Your task to perform on an android device: Add "asus rog" to the cart on bestbuy Image 0: 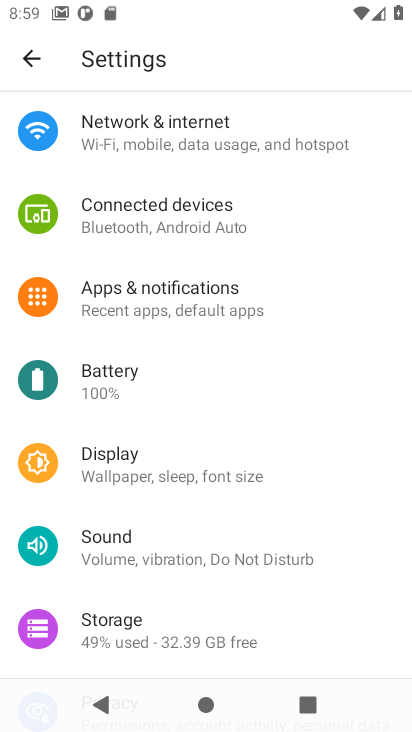
Step 0: press home button
Your task to perform on an android device: Add "asus rog" to the cart on bestbuy Image 1: 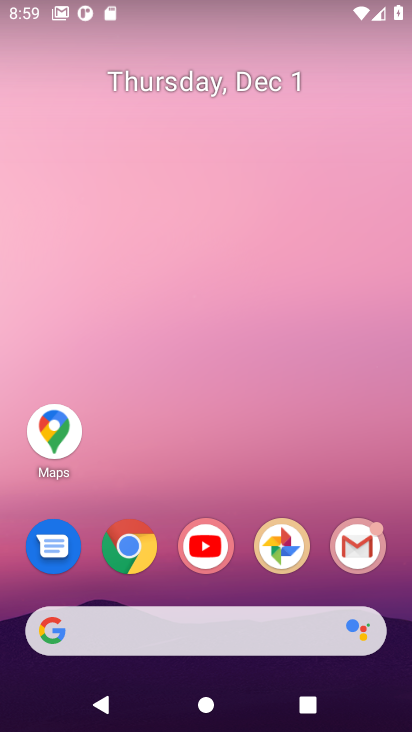
Step 1: click (130, 552)
Your task to perform on an android device: Add "asus rog" to the cart on bestbuy Image 2: 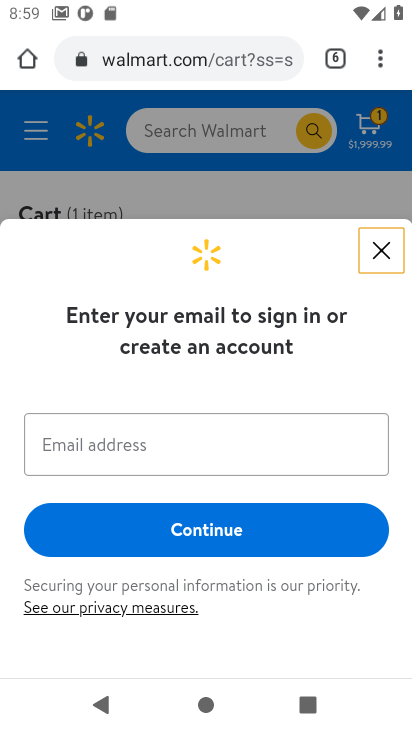
Step 2: click (194, 63)
Your task to perform on an android device: Add "asus rog" to the cart on bestbuy Image 3: 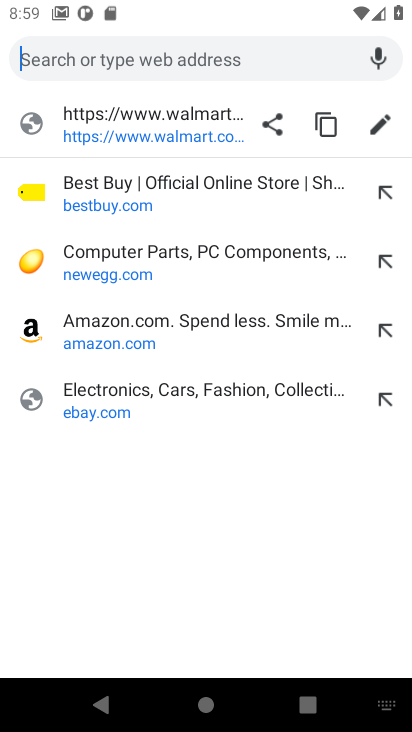
Step 3: click (104, 198)
Your task to perform on an android device: Add "asus rog" to the cart on bestbuy Image 4: 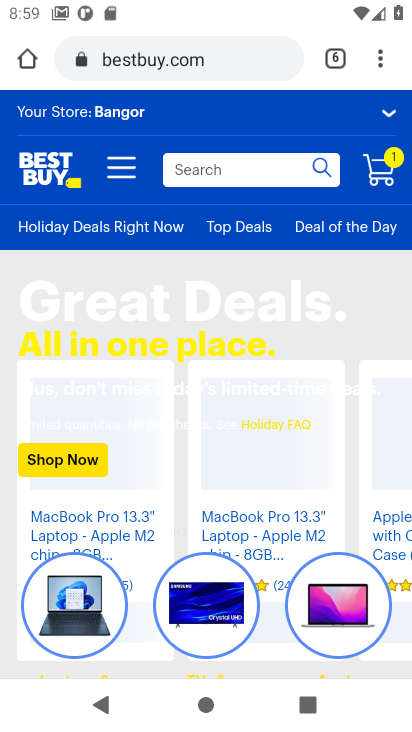
Step 4: click (197, 170)
Your task to perform on an android device: Add "asus rog" to the cart on bestbuy Image 5: 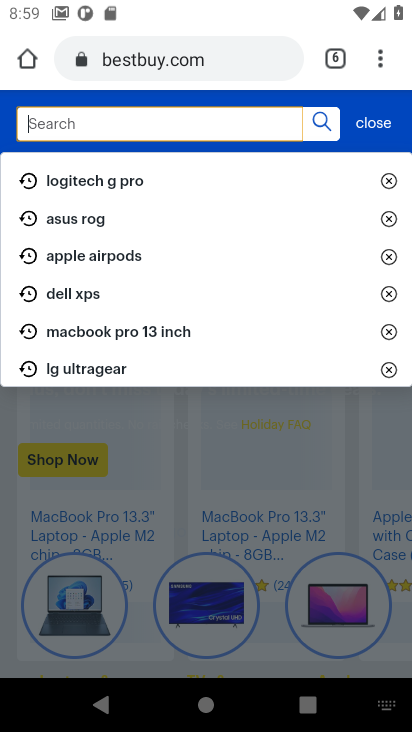
Step 5: type "asus rog"
Your task to perform on an android device: Add "asus rog" to the cart on bestbuy Image 6: 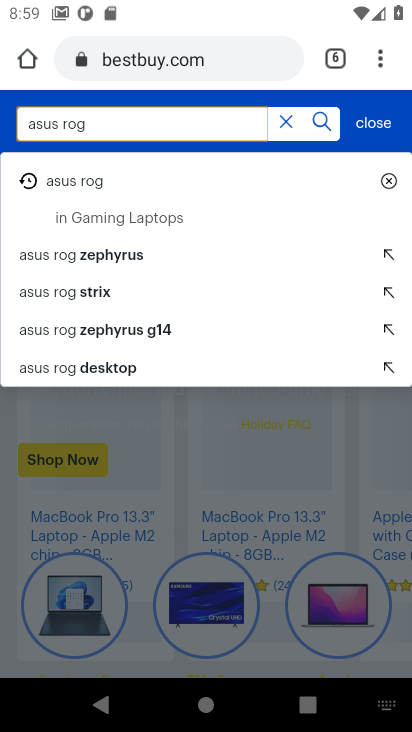
Step 6: click (54, 182)
Your task to perform on an android device: Add "asus rog" to the cart on bestbuy Image 7: 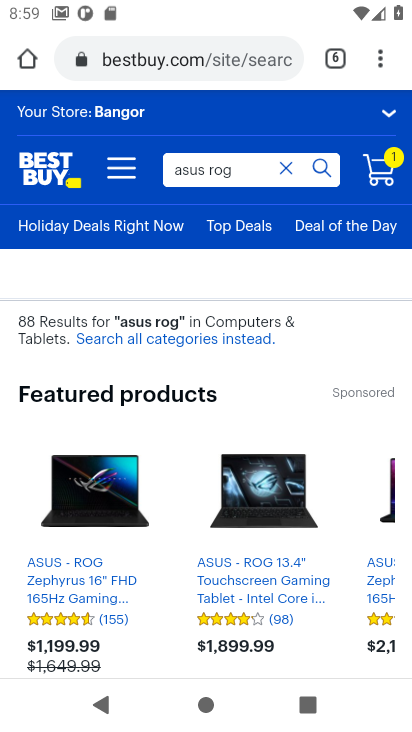
Step 7: drag from (196, 498) to (200, 307)
Your task to perform on an android device: Add "asus rog" to the cart on bestbuy Image 8: 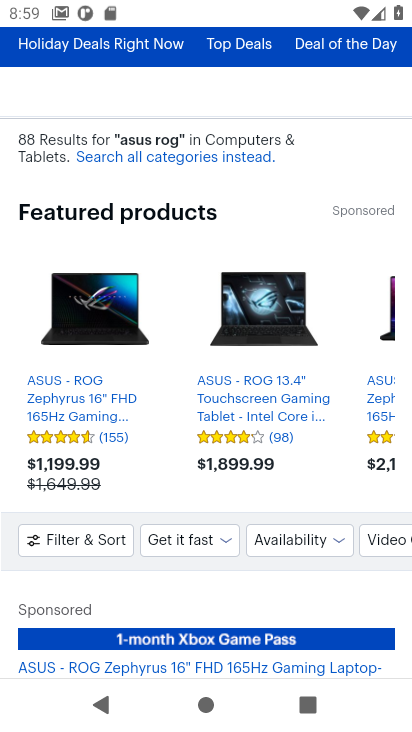
Step 8: drag from (197, 526) to (188, 257)
Your task to perform on an android device: Add "asus rog" to the cart on bestbuy Image 9: 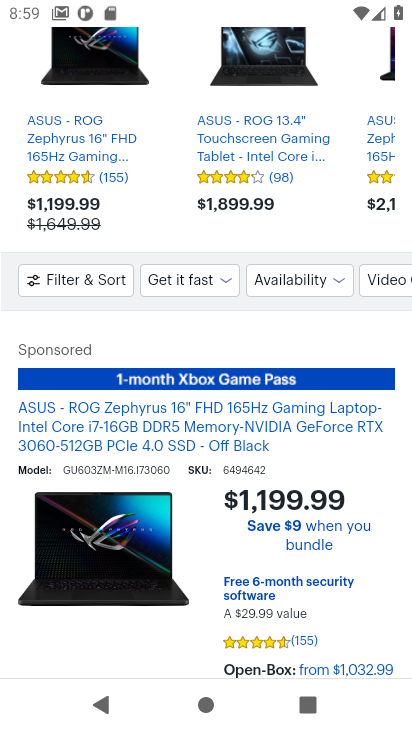
Step 9: drag from (160, 490) to (162, 343)
Your task to perform on an android device: Add "asus rog" to the cart on bestbuy Image 10: 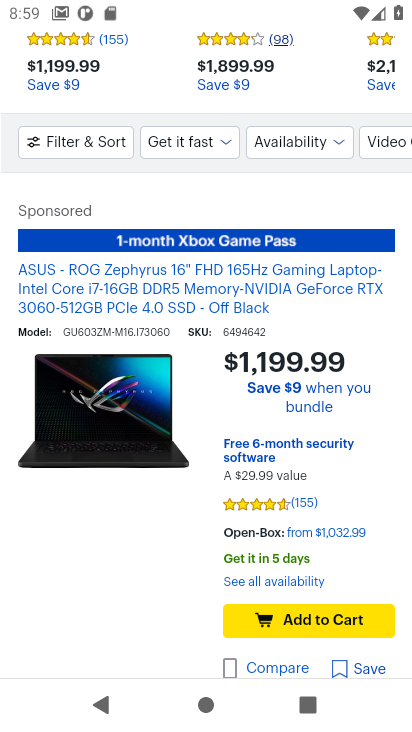
Step 10: click (298, 619)
Your task to perform on an android device: Add "asus rog" to the cart on bestbuy Image 11: 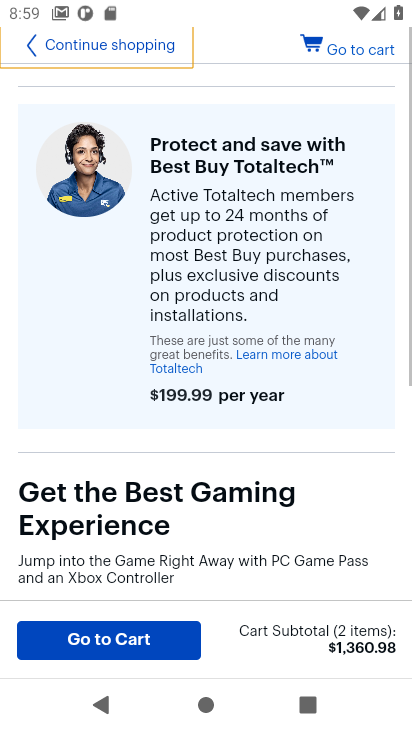
Step 11: task complete